Your task to perform on an android device: Go to internet settings Image 0: 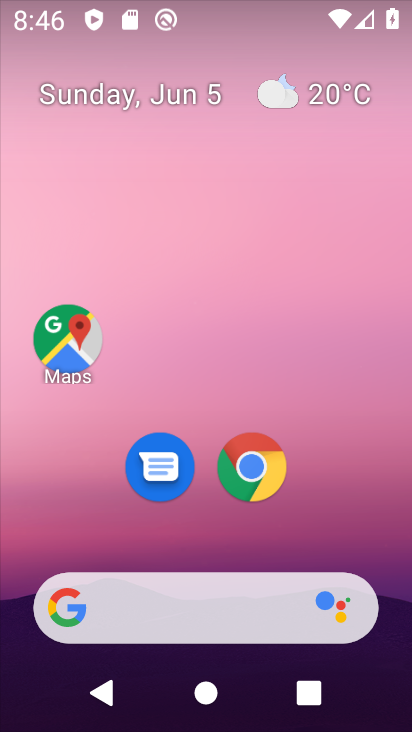
Step 0: drag from (318, 516) to (268, 4)
Your task to perform on an android device: Go to internet settings Image 1: 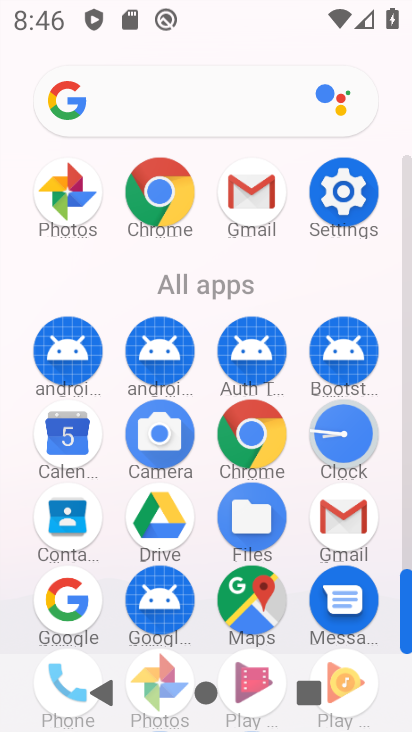
Step 1: click (354, 186)
Your task to perform on an android device: Go to internet settings Image 2: 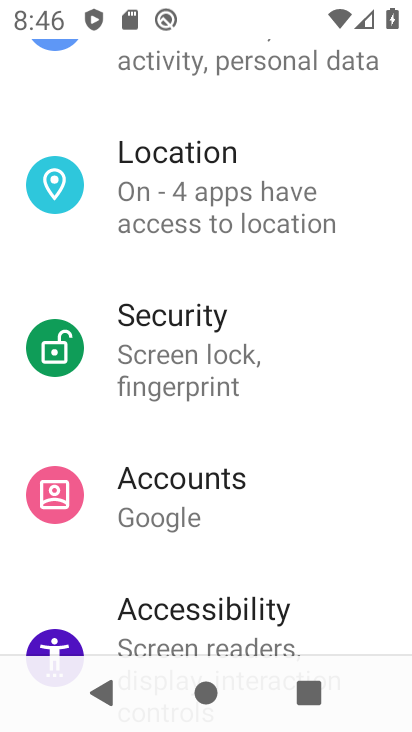
Step 2: drag from (215, 247) to (293, 686)
Your task to perform on an android device: Go to internet settings Image 3: 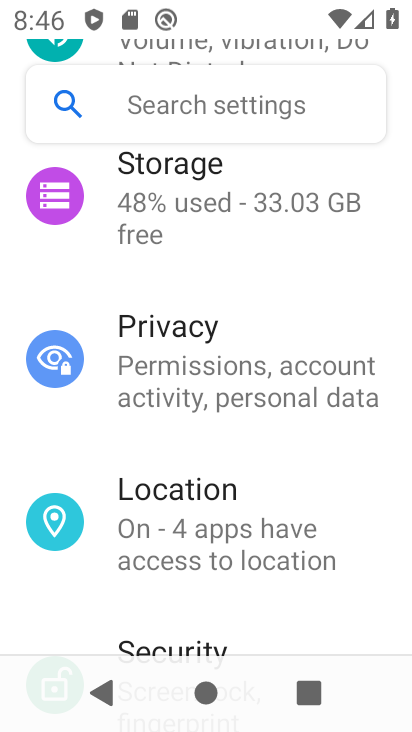
Step 3: drag from (312, 497) to (353, 681)
Your task to perform on an android device: Go to internet settings Image 4: 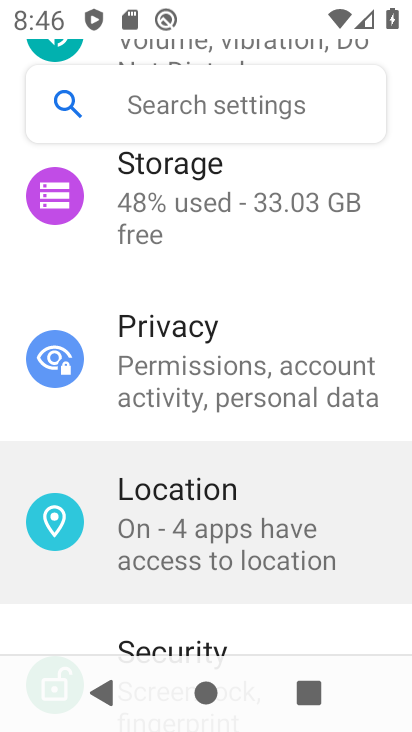
Step 4: drag from (243, 256) to (286, 690)
Your task to perform on an android device: Go to internet settings Image 5: 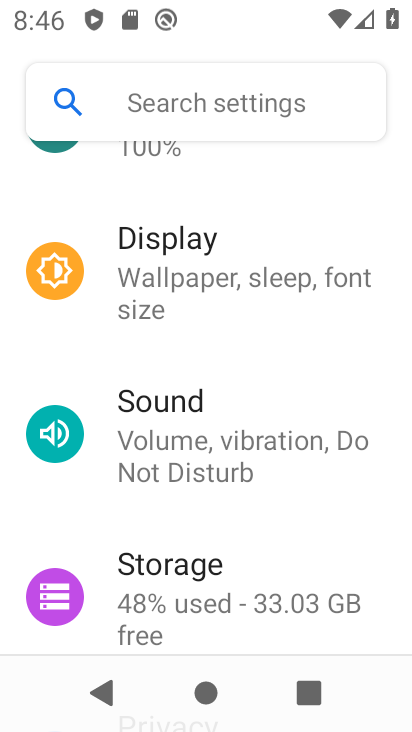
Step 5: drag from (236, 322) to (169, 708)
Your task to perform on an android device: Go to internet settings Image 6: 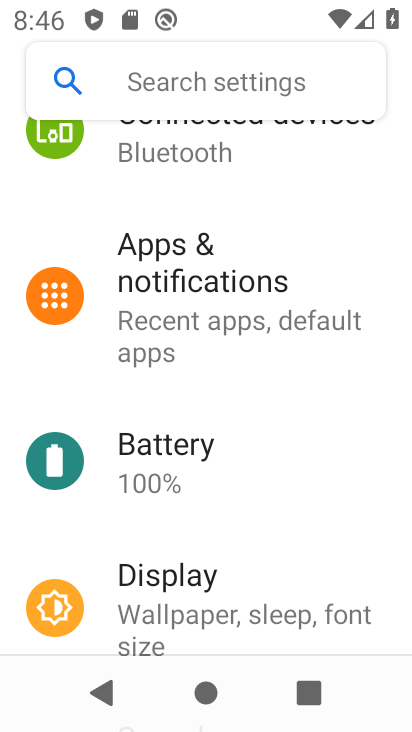
Step 6: drag from (186, 274) to (251, 724)
Your task to perform on an android device: Go to internet settings Image 7: 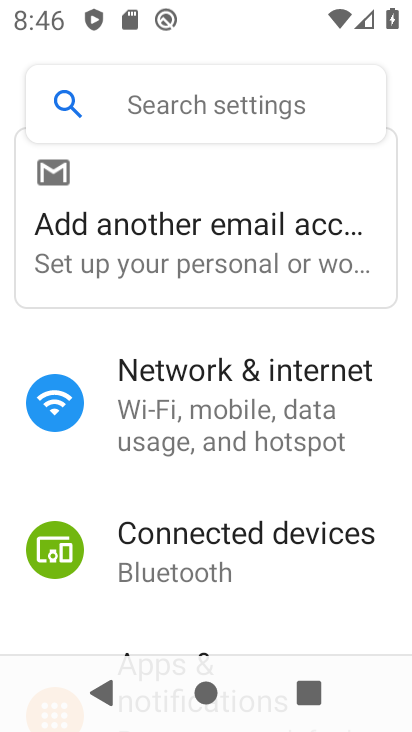
Step 7: drag from (232, 410) to (248, 595)
Your task to perform on an android device: Go to internet settings Image 8: 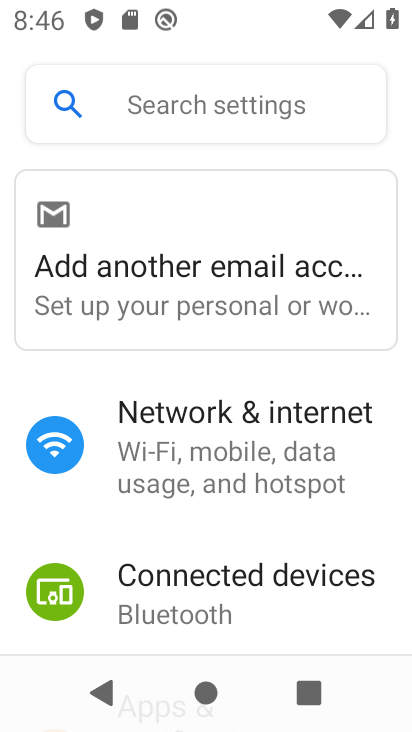
Step 8: click (223, 425)
Your task to perform on an android device: Go to internet settings Image 9: 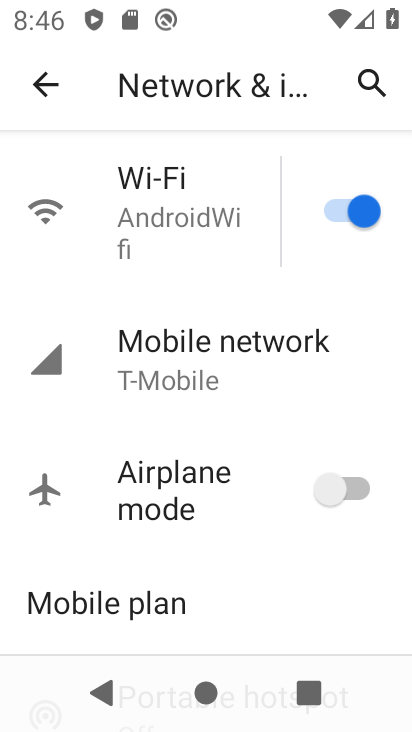
Step 9: click (214, 371)
Your task to perform on an android device: Go to internet settings Image 10: 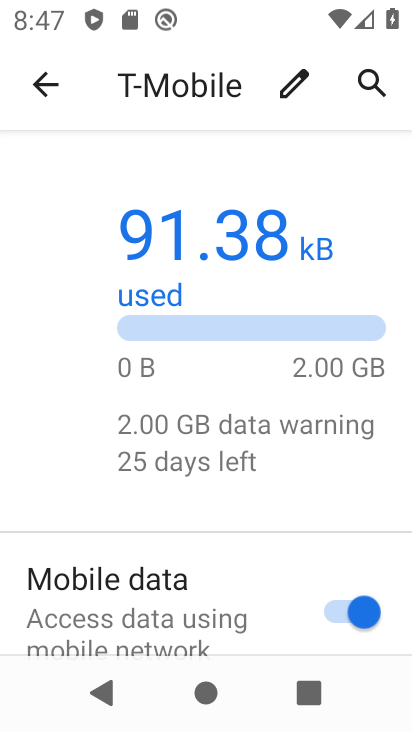
Step 10: task complete